Your task to perform on an android device: Open settings Image 0: 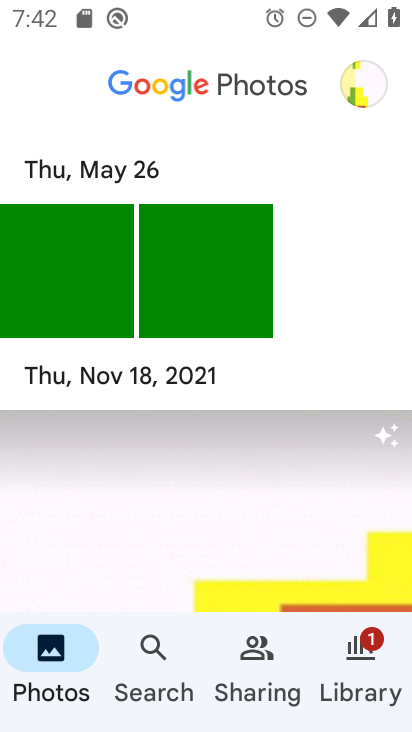
Step 0: press home button
Your task to perform on an android device: Open settings Image 1: 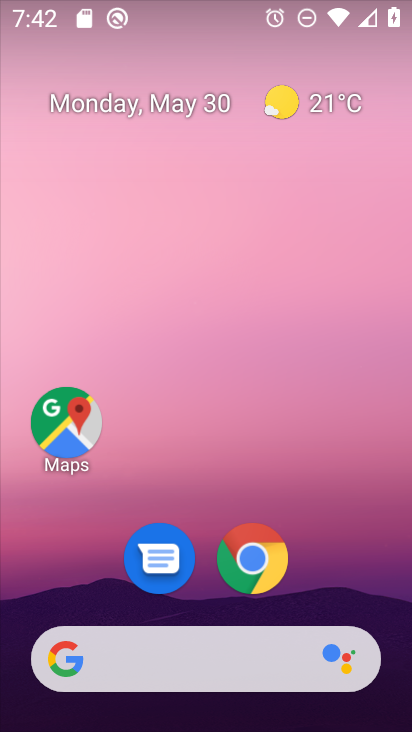
Step 1: drag from (326, 537) to (147, 54)
Your task to perform on an android device: Open settings Image 2: 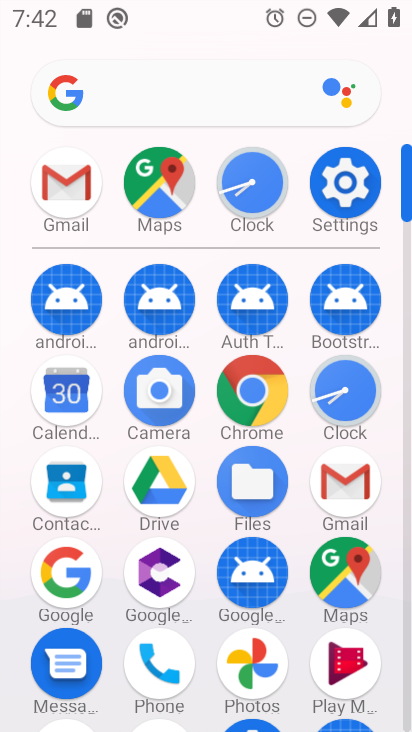
Step 2: click (351, 178)
Your task to perform on an android device: Open settings Image 3: 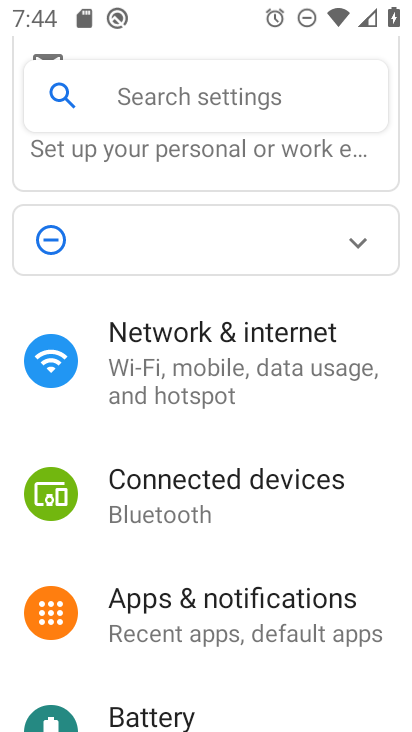
Step 3: task complete